Your task to perform on an android device: Search for sushi restaurants on Maps Image 0: 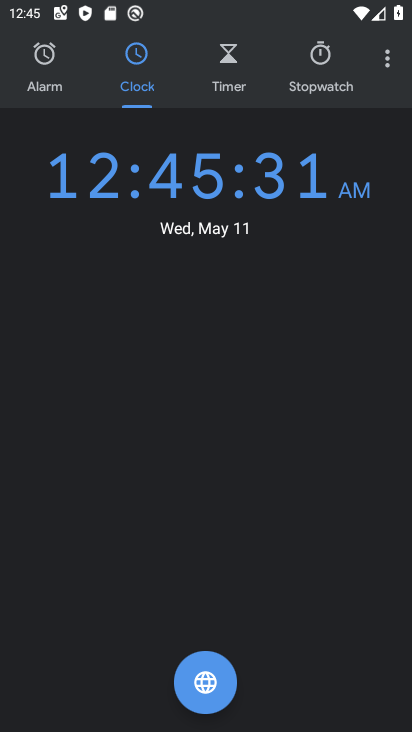
Step 0: press home button
Your task to perform on an android device: Search for sushi restaurants on Maps Image 1: 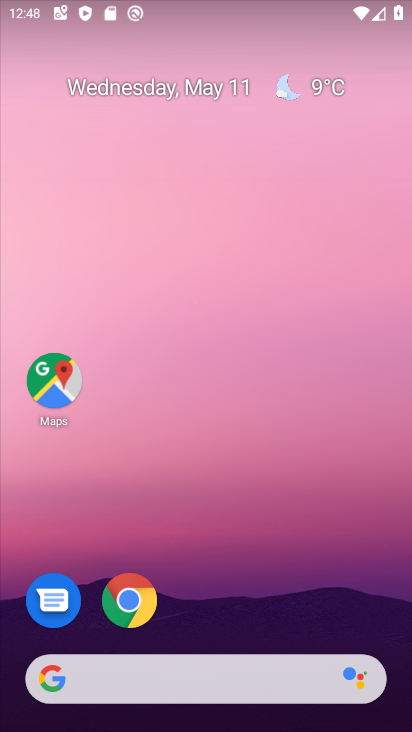
Step 1: click (53, 380)
Your task to perform on an android device: Search for sushi restaurants on Maps Image 2: 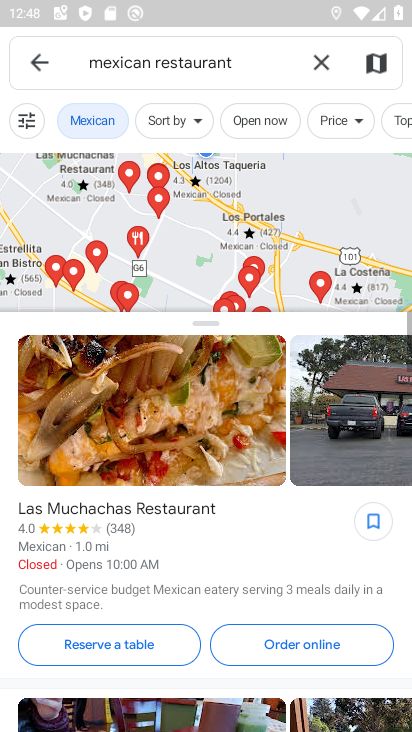
Step 2: click (325, 63)
Your task to perform on an android device: Search for sushi restaurants on Maps Image 3: 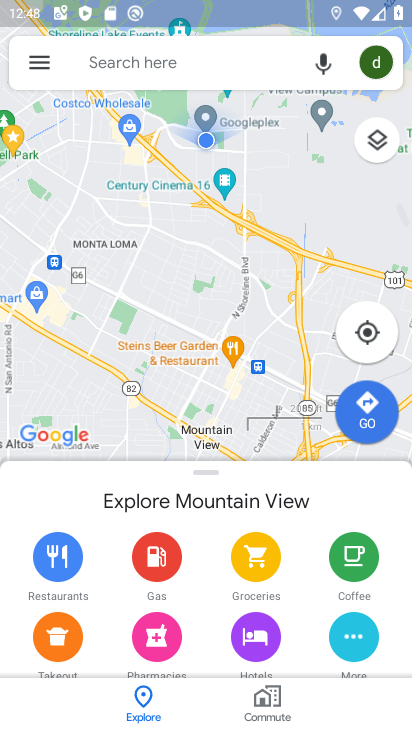
Step 3: click (237, 65)
Your task to perform on an android device: Search for sushi restaurants on Maps Image 4: 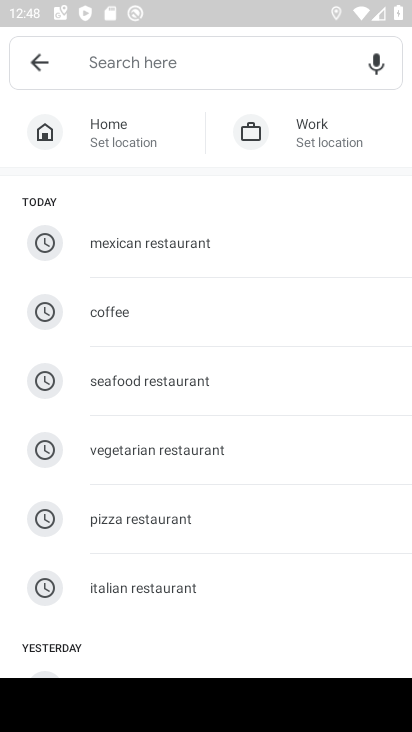
Step 4: drag from (247, 511) to (253, 94)
Your task to perform on an android device: Search for sushi restaurants on Maps Image 5: 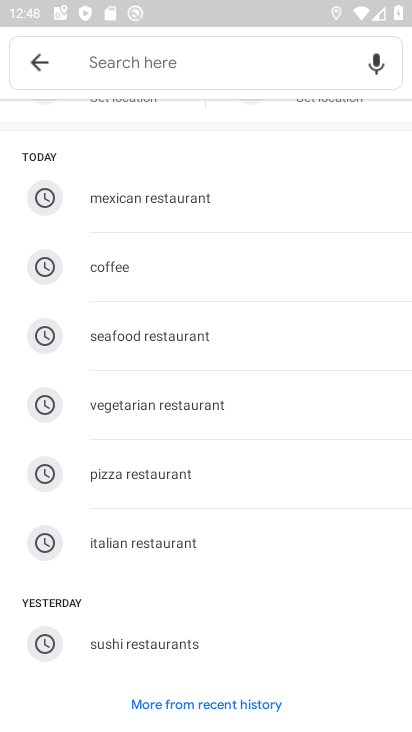
Step 5: click (167, 641)
Your task to perform on an android device: Search for sushi restaurants on Maps Image 6: 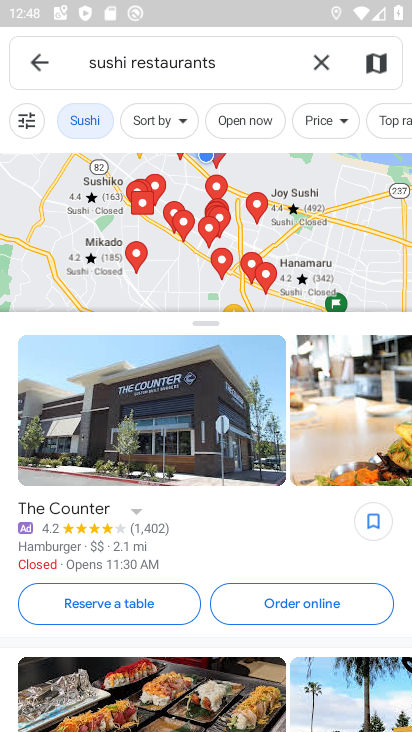
Step 6: task complete